Your task to perform on an android device: Go to calendar. Show me events next week Image 0: 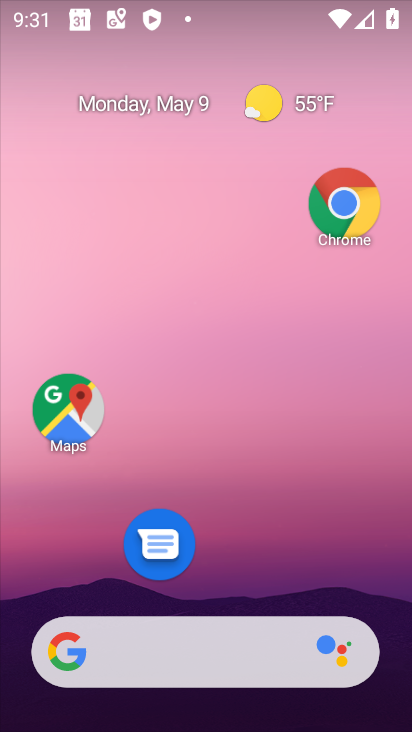
Step 0: drag from (204, 470) to (175, 91)
Your task to perform on an android device: Go to calendar. Show me events next week Image 1: 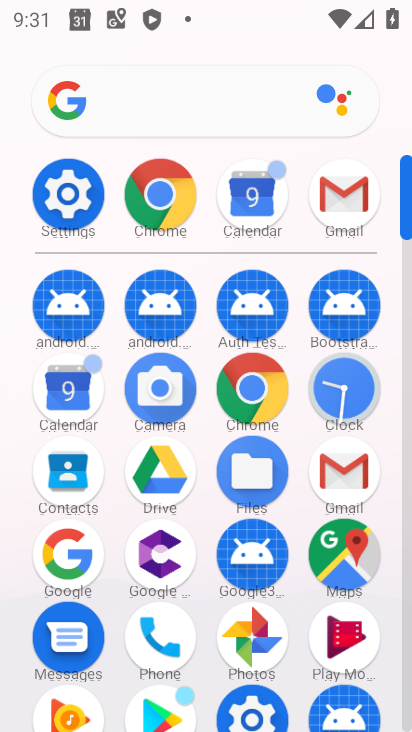
Step 1: click (64, 372)
Your task to perform on an android device: Go to calendar. Show me events next week Image 2: 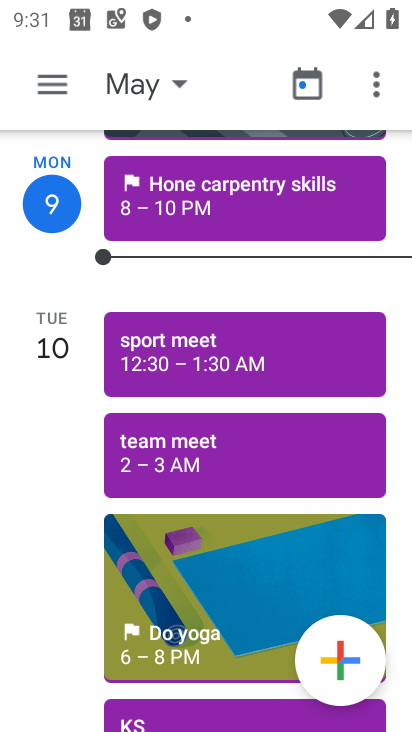
Step 2: click (160, 92)
Your task to perform on an android device: Go to calendar. Show me events next week Image 3: 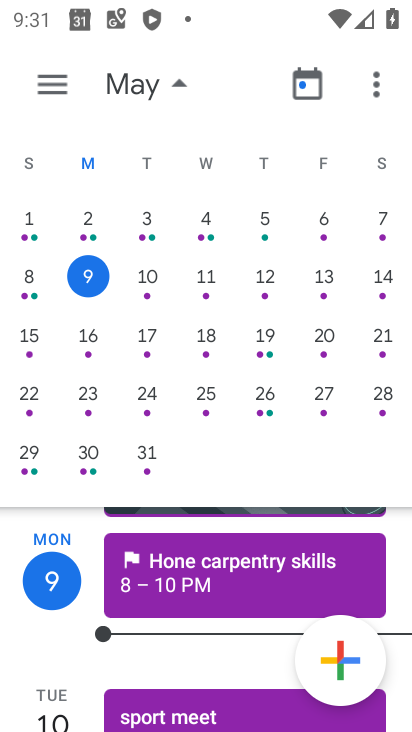
Step 3: click (89, 339)
Your task to perform on an android device: Go to calendar. Show me events next week Image 4: 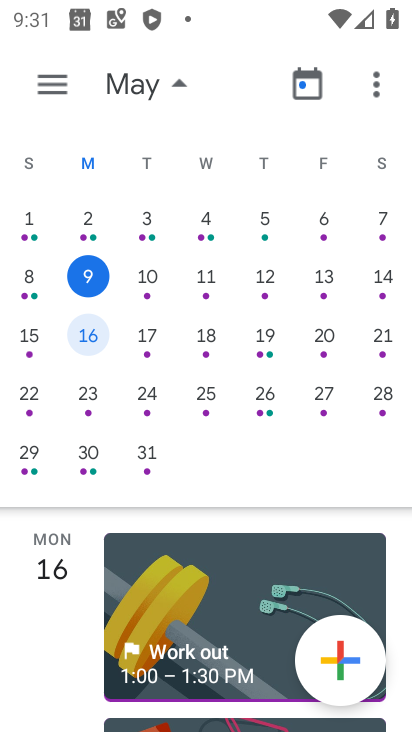
Step 4: task complete